Your task to perform on an android device: set the timer Image 0: 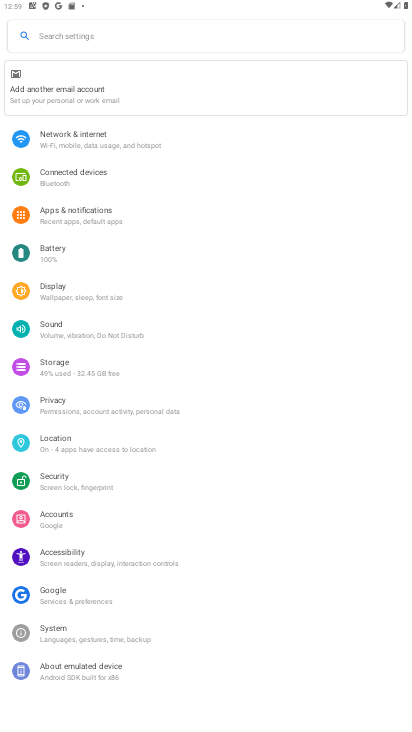
Step 0: press home button
Your task to perform on an android device: set the timer Image 1: 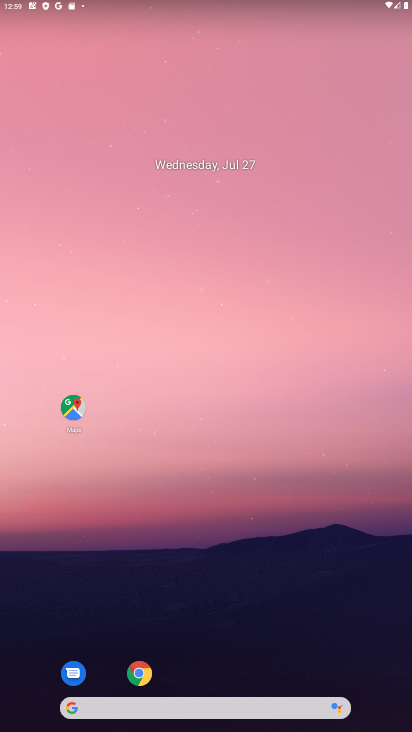
Step 1: drag from (203, 587) to (210, 5)
Your task to perform on an android device: set the timer Image 2: 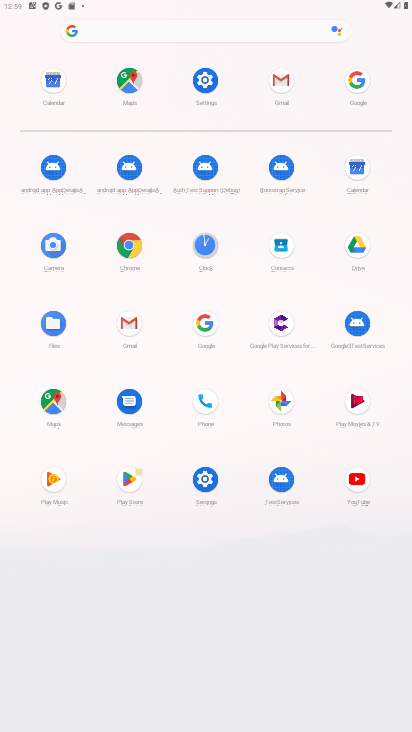
Step 2: click (208, 242)
Your task to perform on an android device: set the timer Image 3: 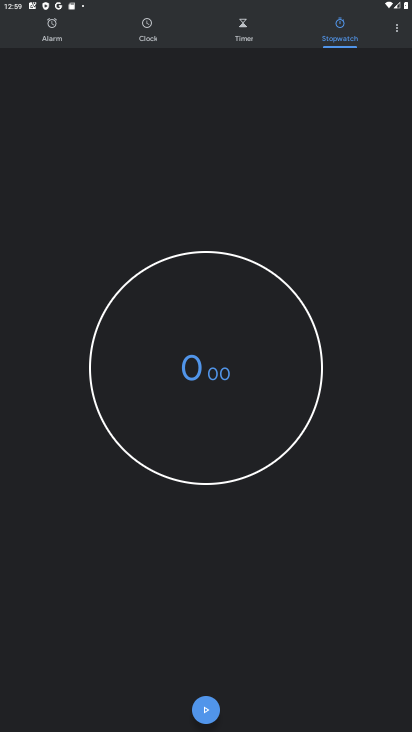
Step 3: click (243, 29)
Your task to perform on an android device: set the timer Image 4: 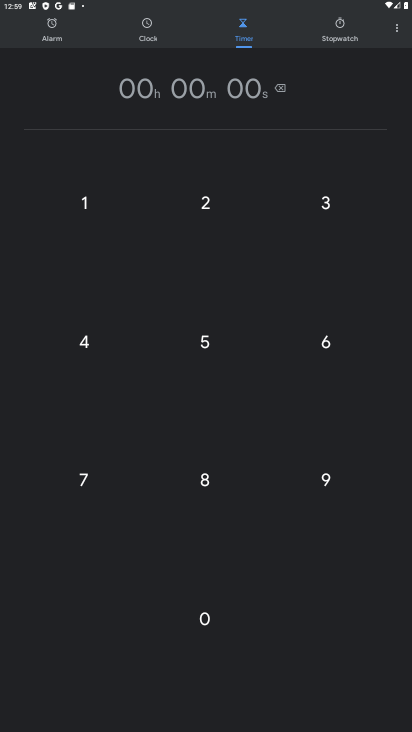
Step 4: click (200, 204)
Your task to perform on an android device: set the timer Image 5: 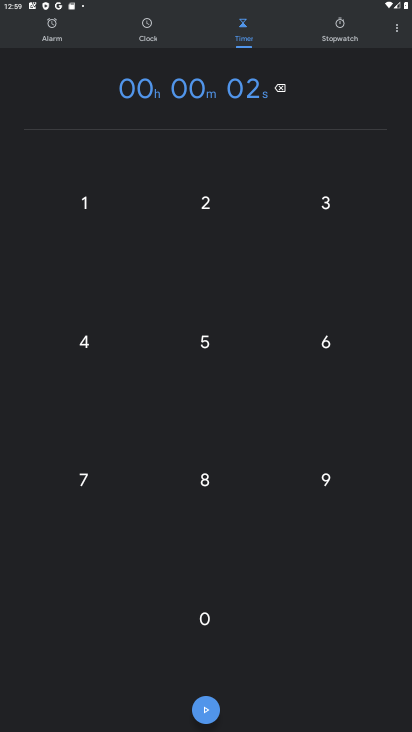
Step 5: click (203, 609)
Your task to perform on an android device: set the timer Image 6: 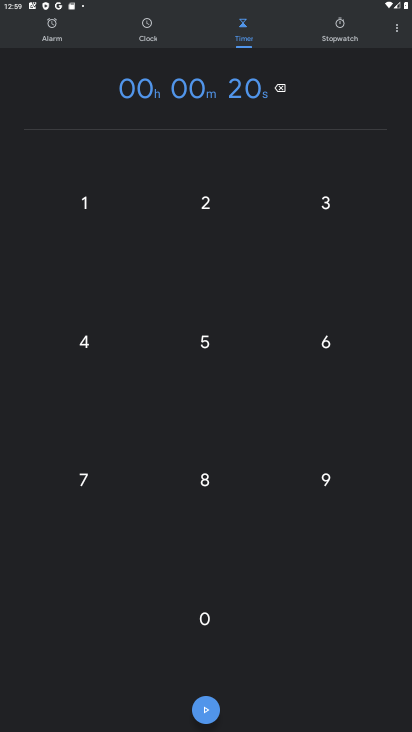
Step 6: click (210, 721)
Your task to perform on an android device: set the timer Image 7: 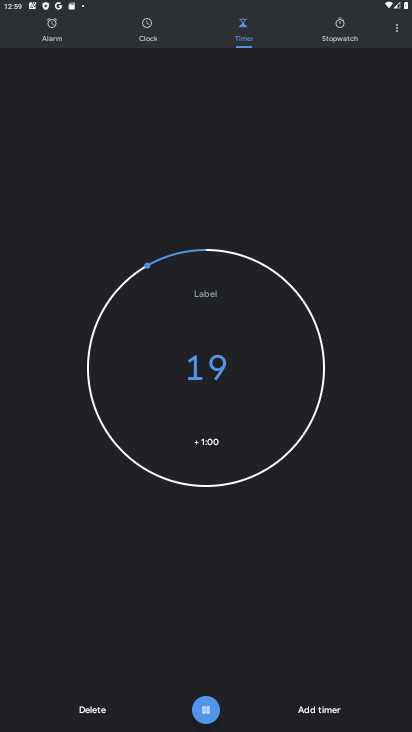
Step 7: task complete